Your task to perform on an android device: Empty the shopping cart on ebay.com. Search for dell xps on ebay.com, select the first entry, add it to the cart, then select checkout. Image 0: 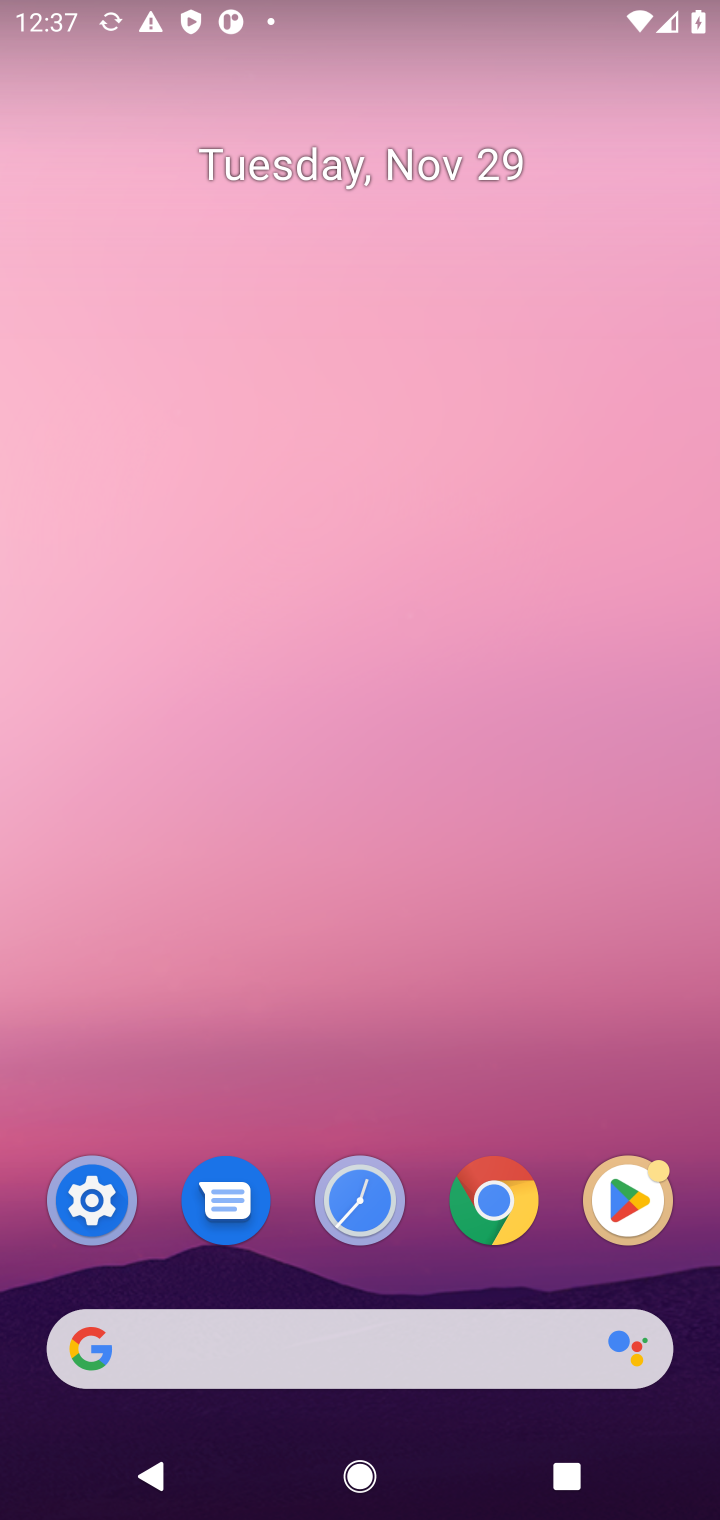
Step 0: click (479, 1325)
Your task to perform on an android device: Empty the shopping cart on ebay.com. Search for dell xps on ebay.com, select the first entry, add it to the cart, then select checkout. Image 1: 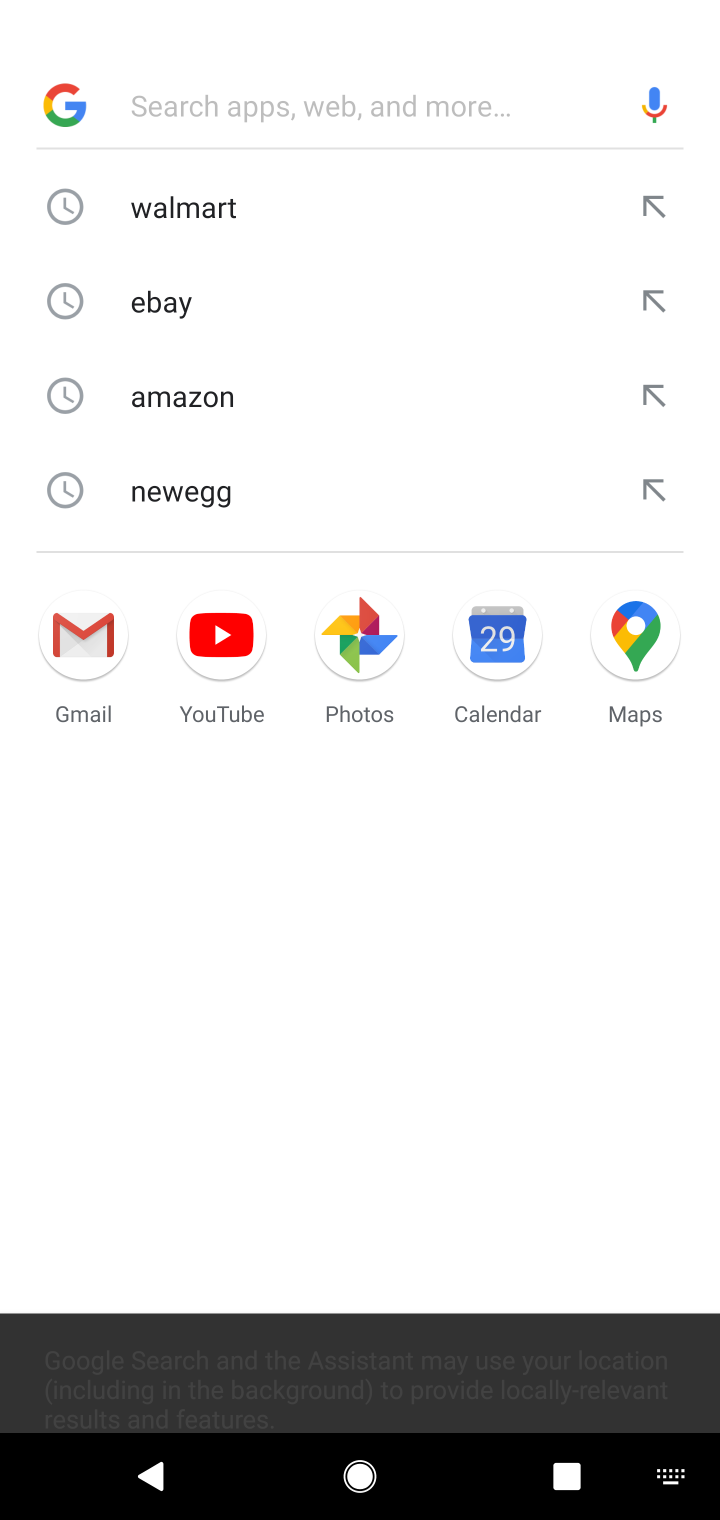
Step 1: type "ebay.com"
Your task to perform on an android device: Empty the shopping cart on ebay.com. Search for dell xps on ebay.com, select the first entry, add it to the cart, then select checkout. Image 2: 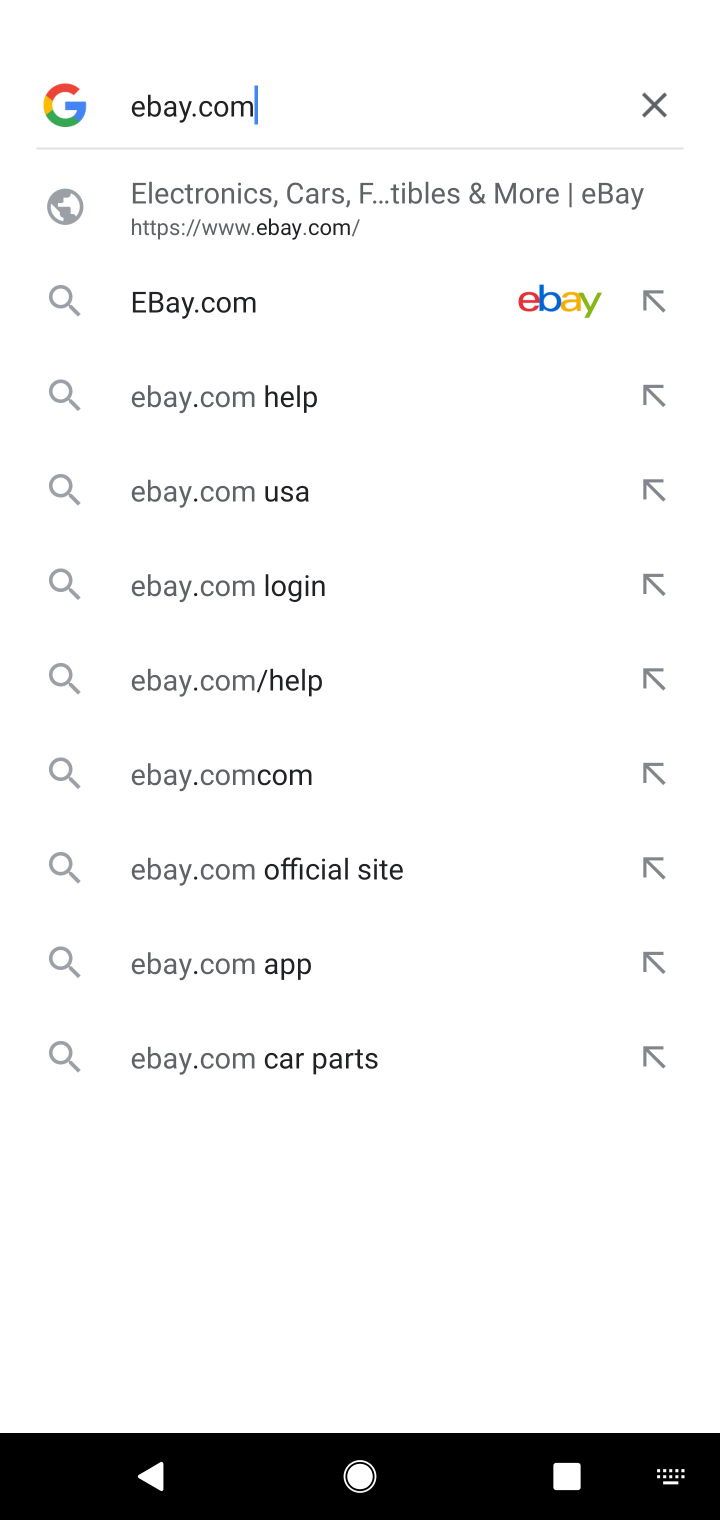
Step 2: click (249, 324)
Your task to perform on an android device: Empty the shopping cart on ebay.com. Search for dell xps on ebay.com, select the first entry, add it to the cart, then select checkout. Image 3: 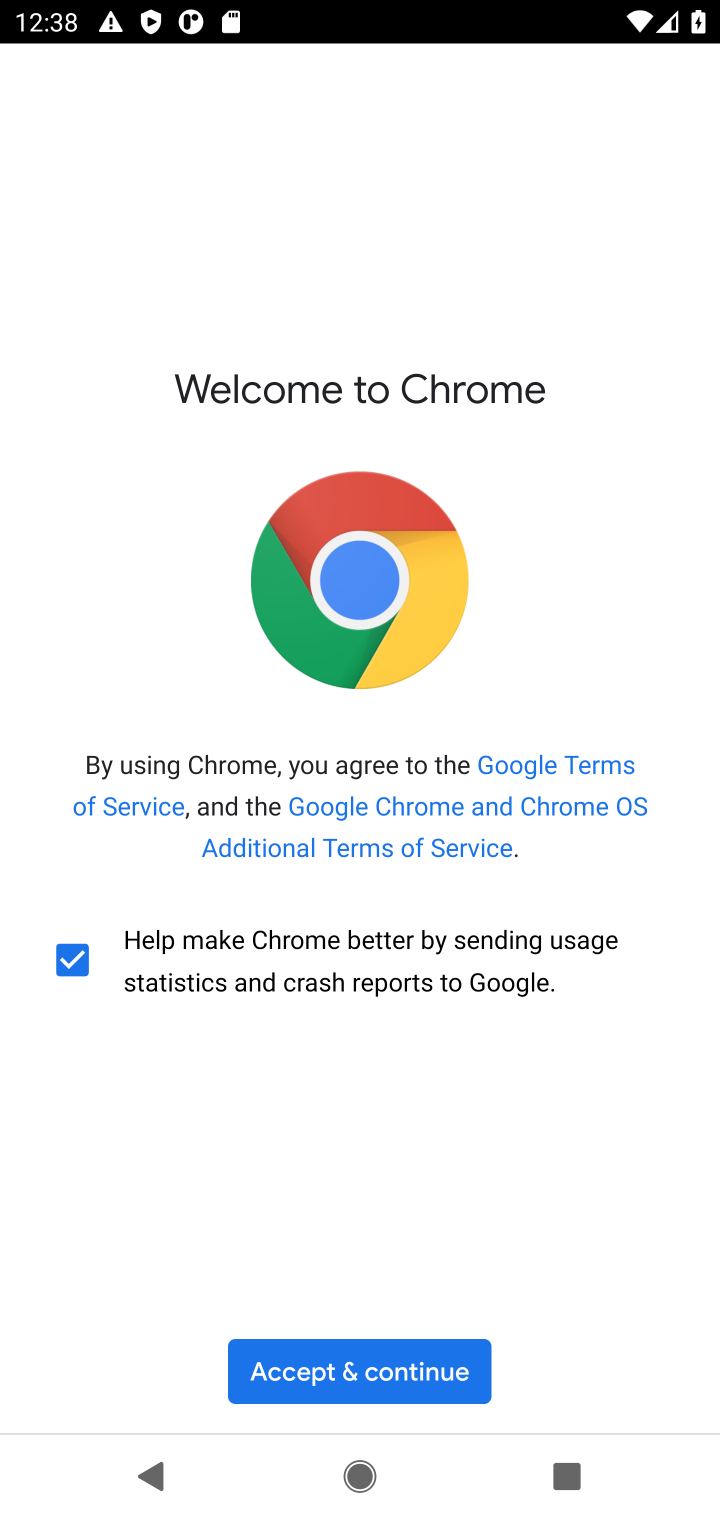
Step 3: click (455, 1397)
Your task to perform on an android device: Empty the shopping cart on ebay.com. Search for dell xps on ebay.com, select the first entry, add it to the cart, then select checkout. Image 4: 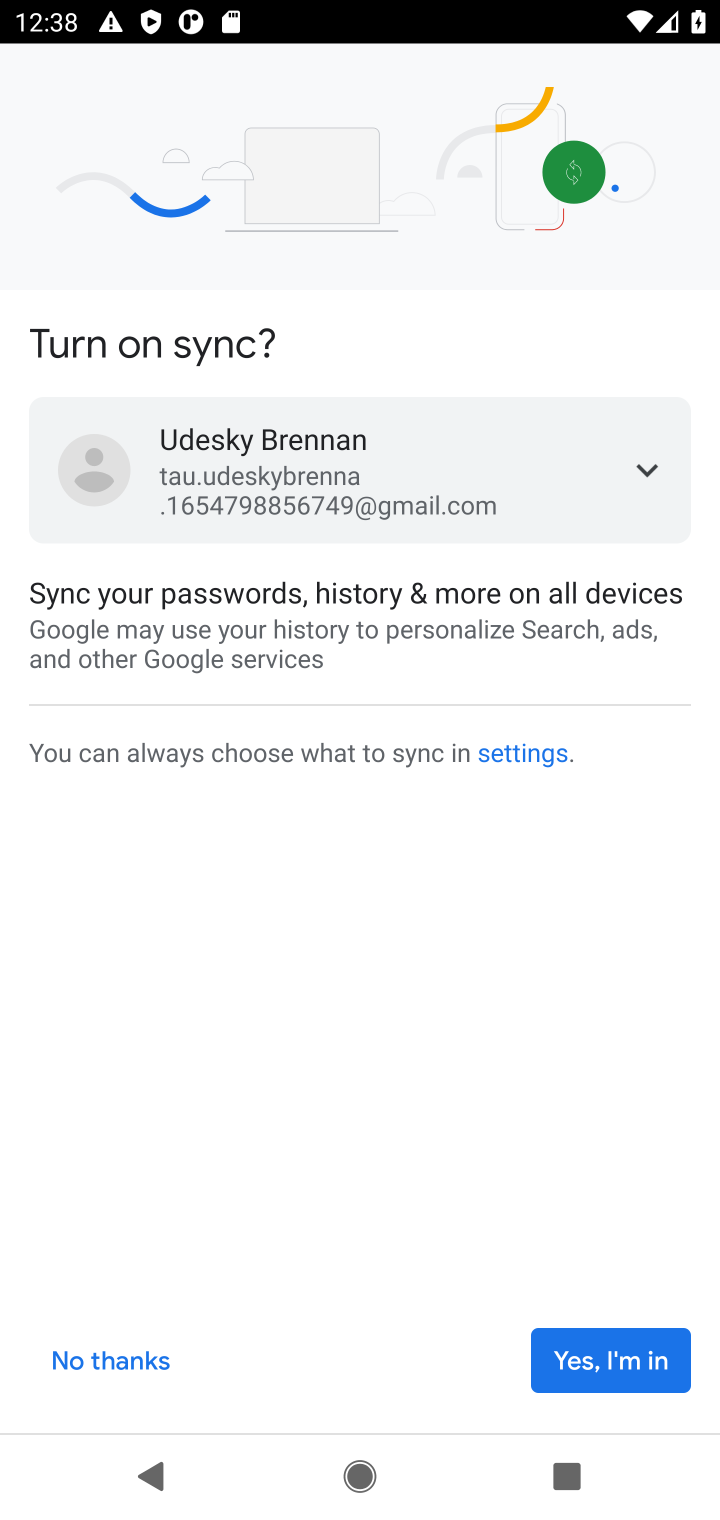
Step 4: click (559, 1375)
Your task to perform on an android device: Empty the shopping cart on ebay.com. Search for dell xps on ebay.com, select the first entry, add it to the cart, then select checkout. Image 5: 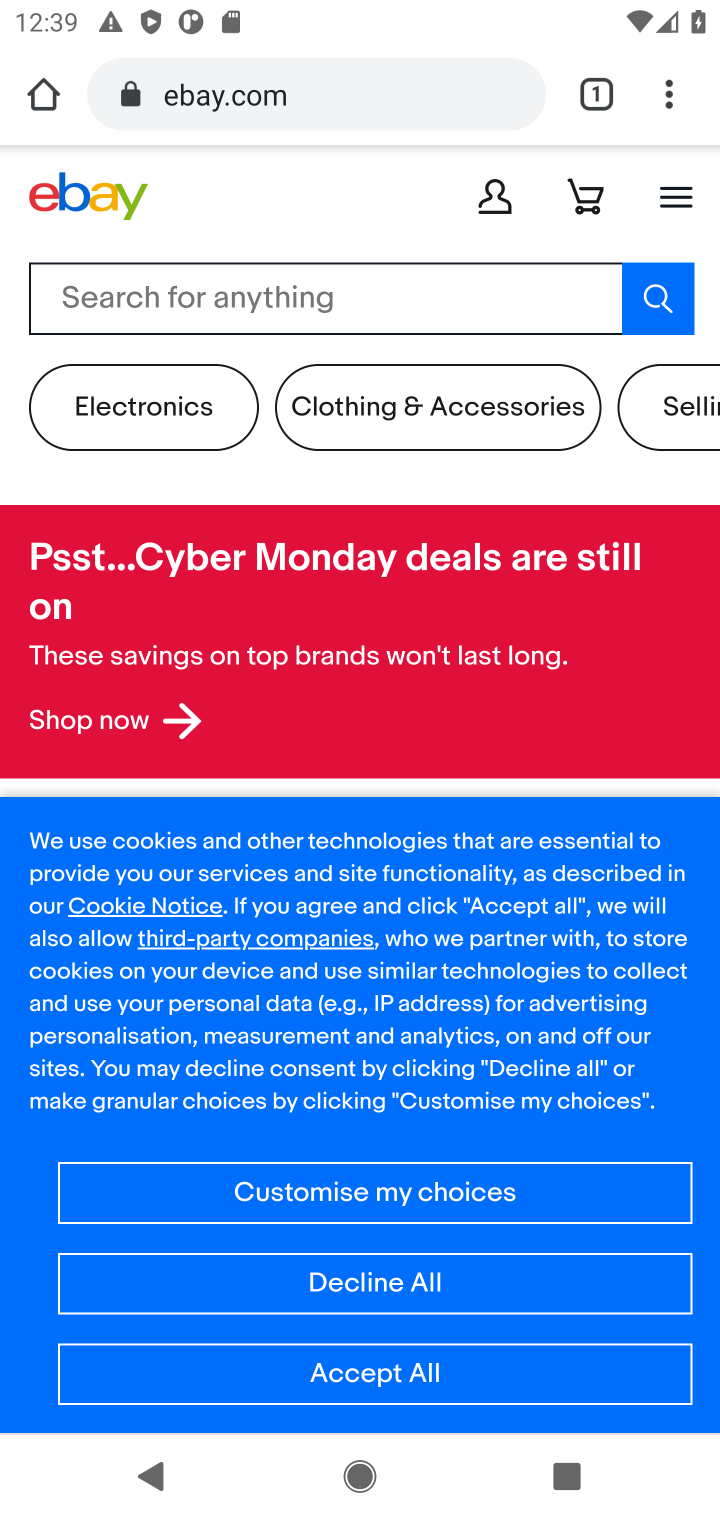
Step 5: task complete